Your task to perform on an android device: What's the news in India? Image 0: 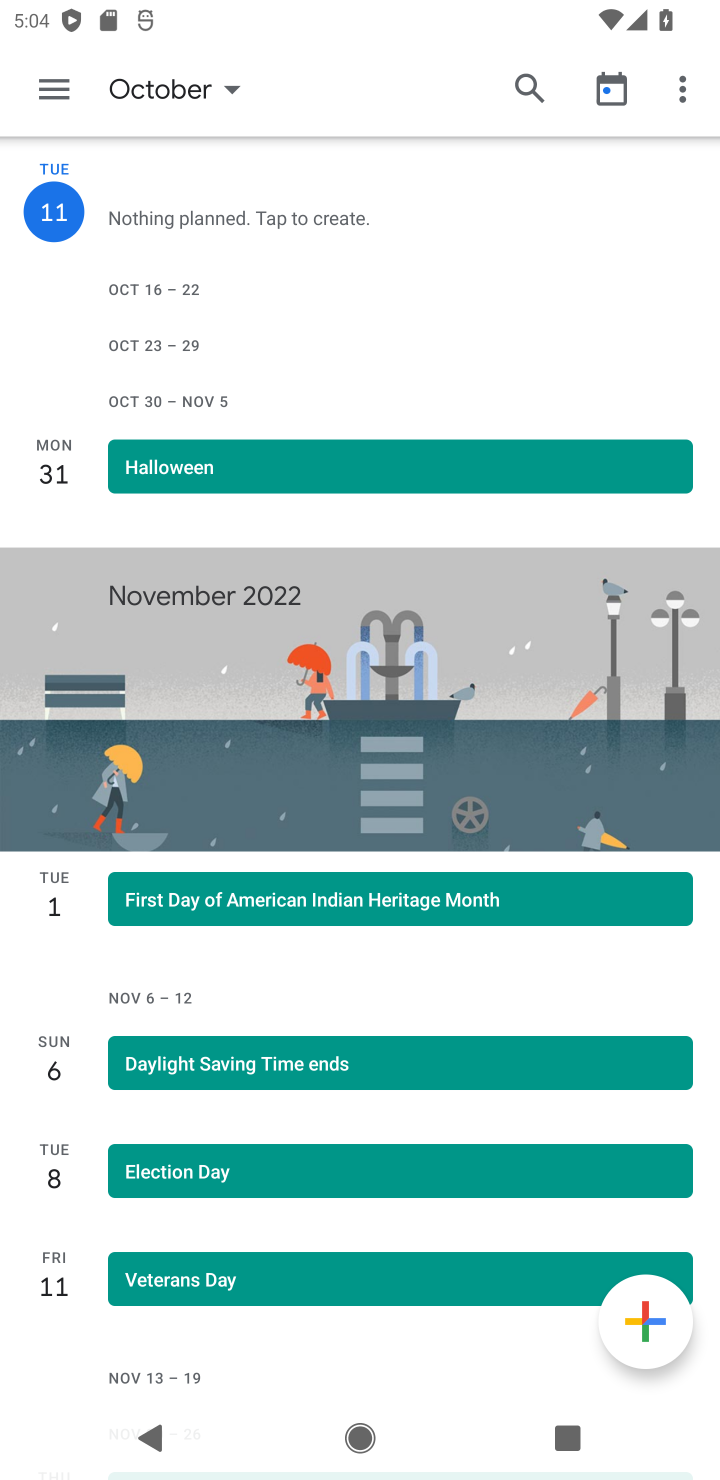
Step 0: press home button
Your task to perform on an android device: What's the news in India? Image 1: 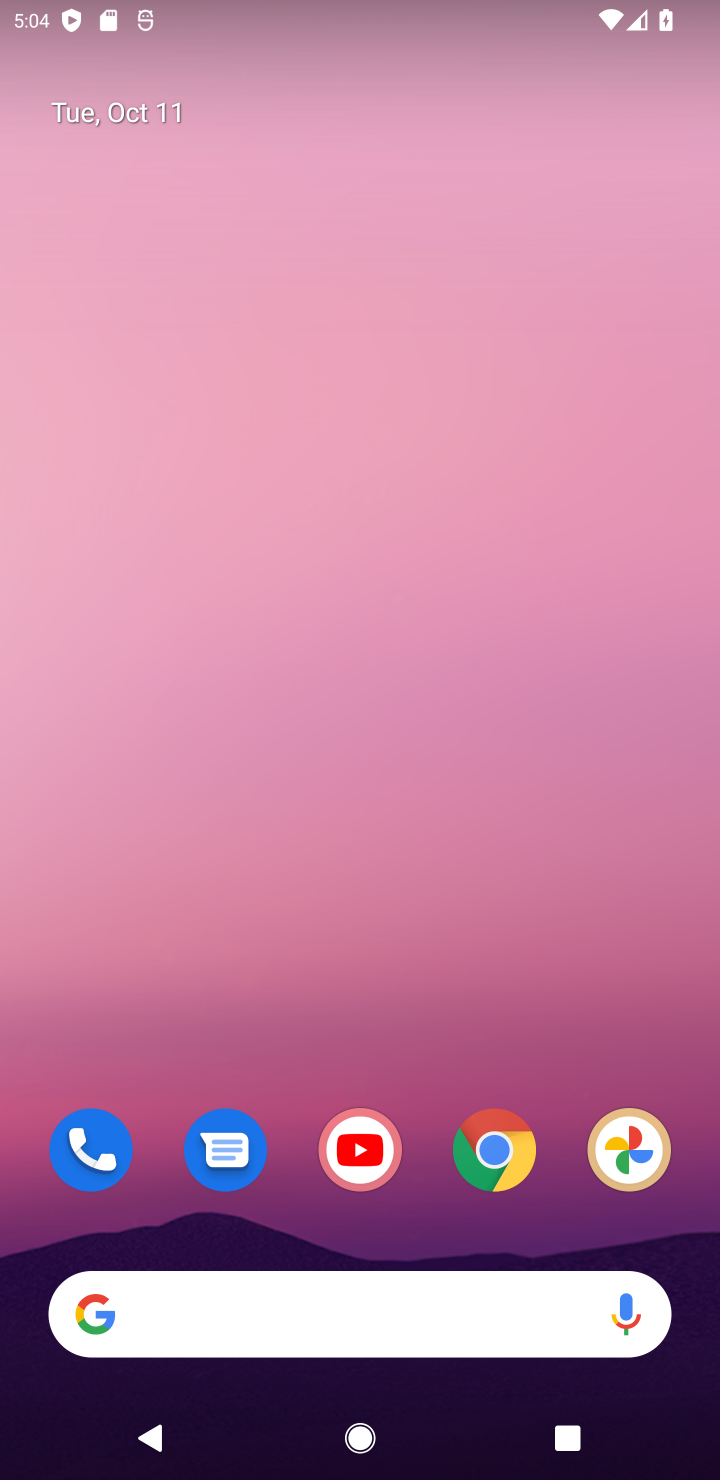
Step 1: click (487, 1150)
Your task to perform on an android device: What's the news in India? Image 2: 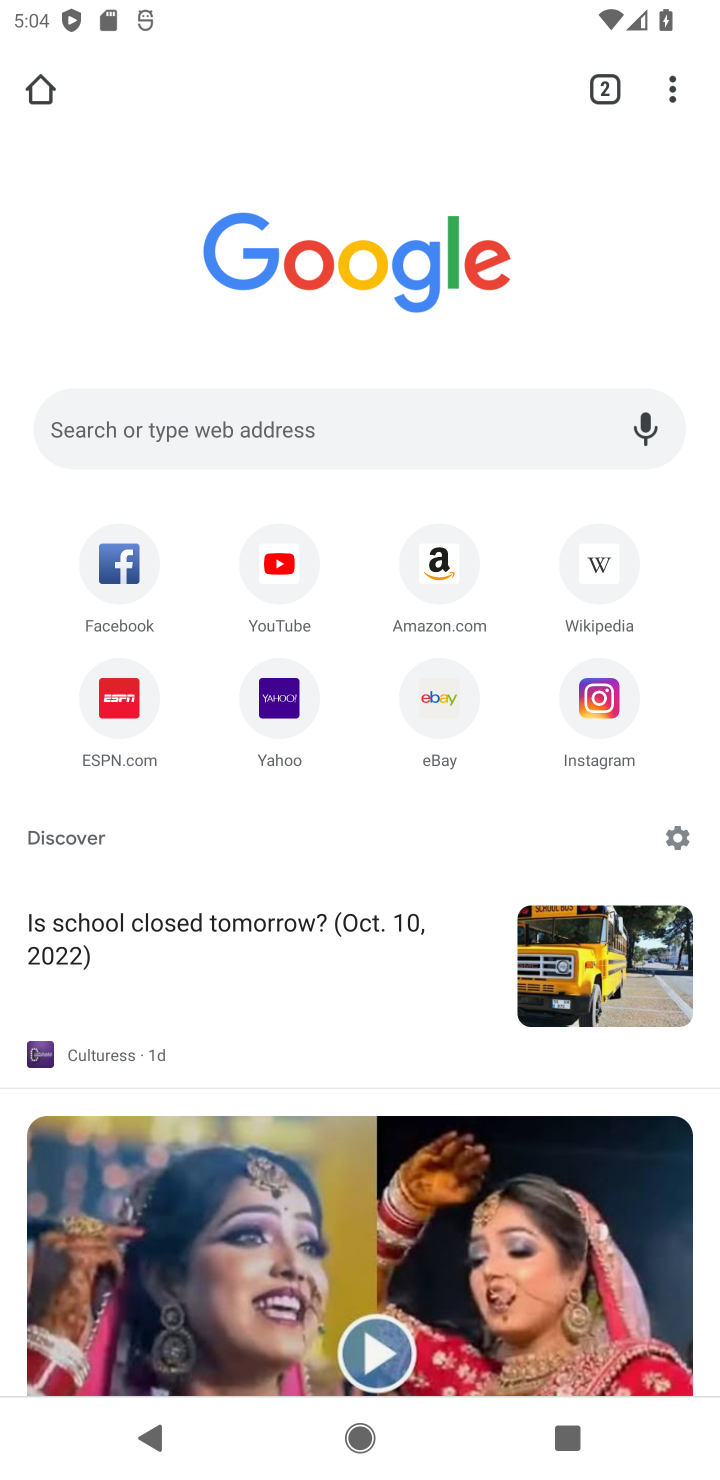
Step 2: click (241, 442)
Your task to perform on an android device: What's the news in India? Image 3: 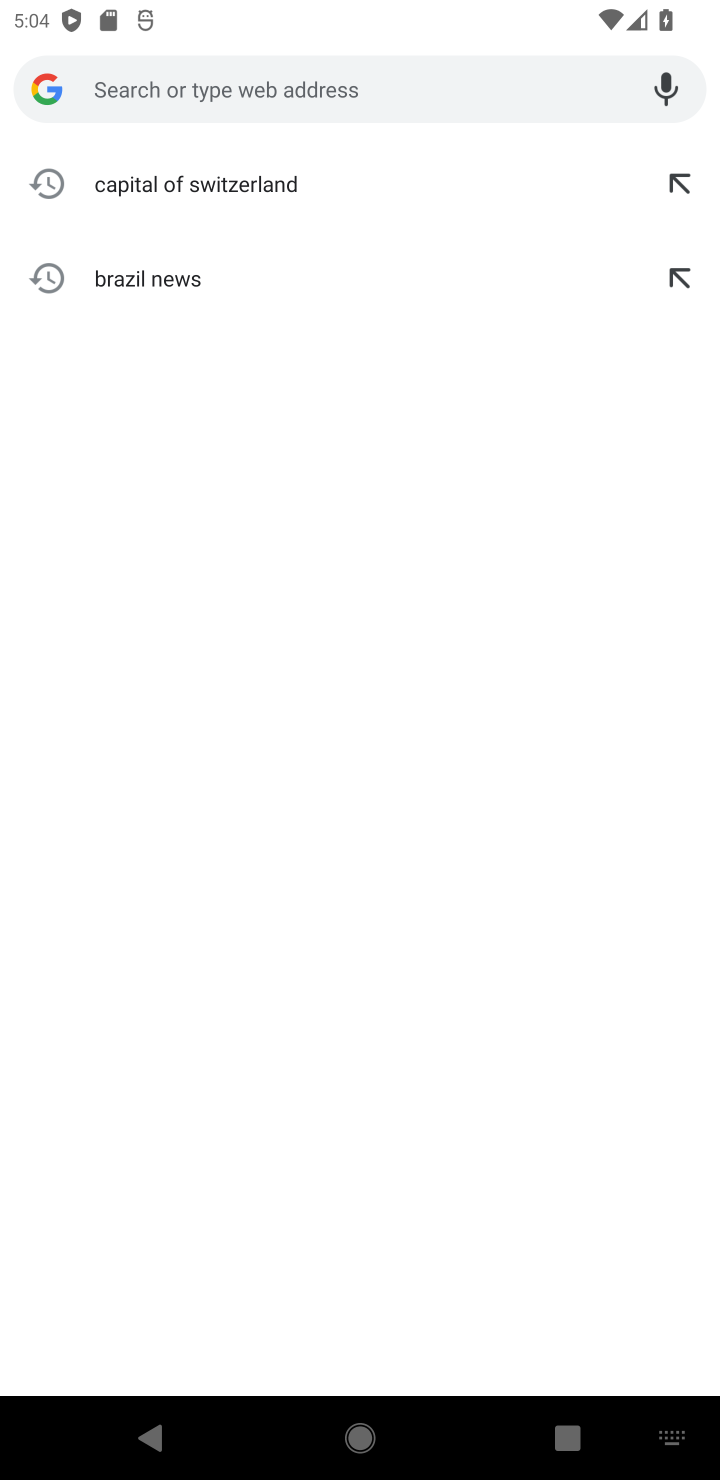
Step 3: type "india news"
Your task to perform on an android device: What's the news in India? Image 4: 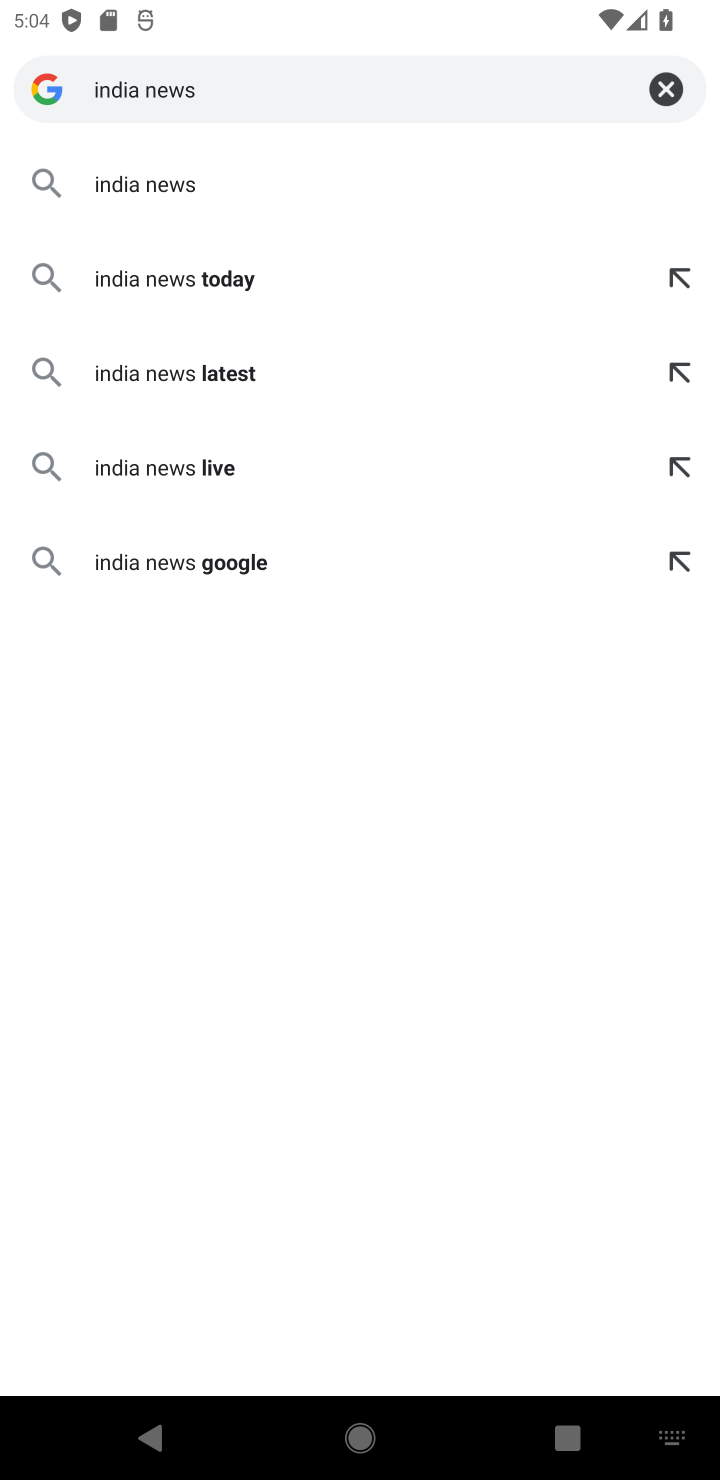
Step 4: click (147, 206)
Your task to perform on an android device: What's the news in India? Image 5: 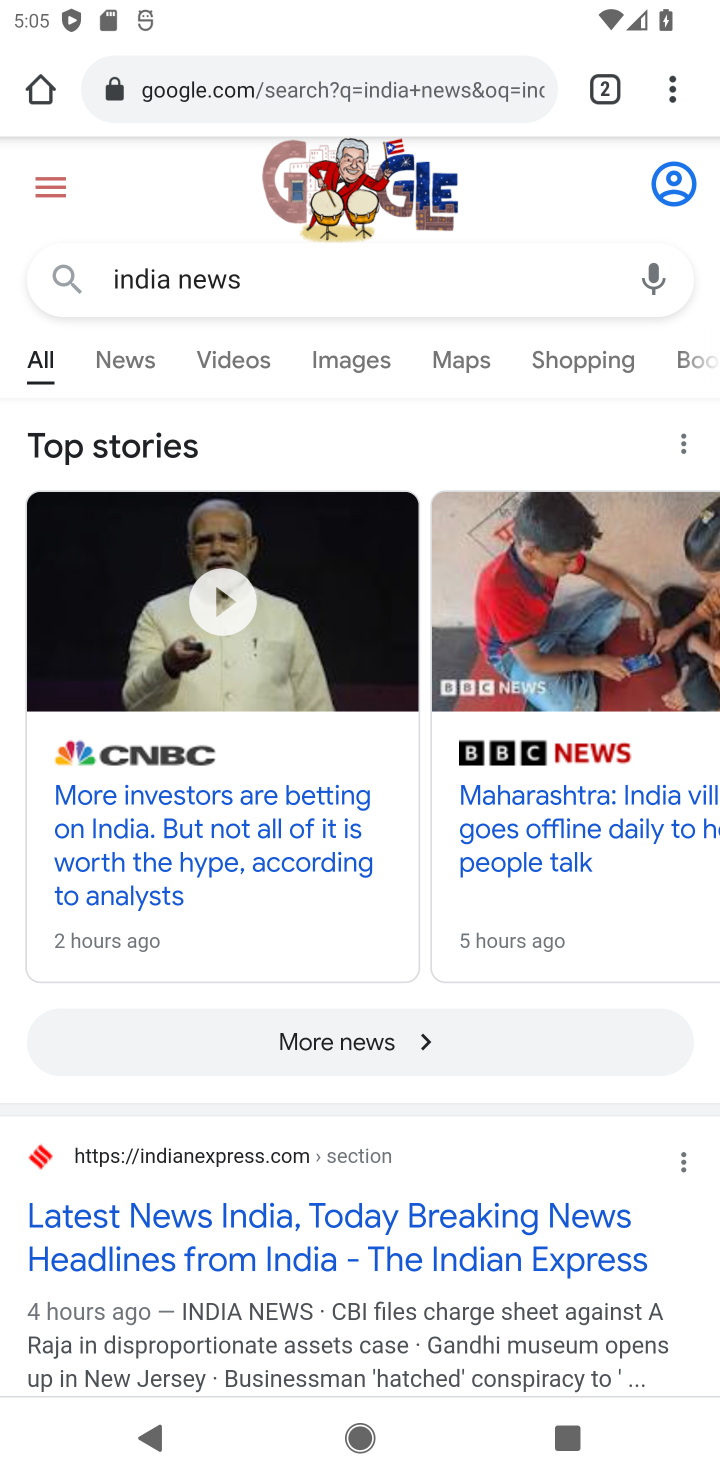
Step 5: click (206, 833)
Your task to perform on an android device: What's the news in India? Image 6: 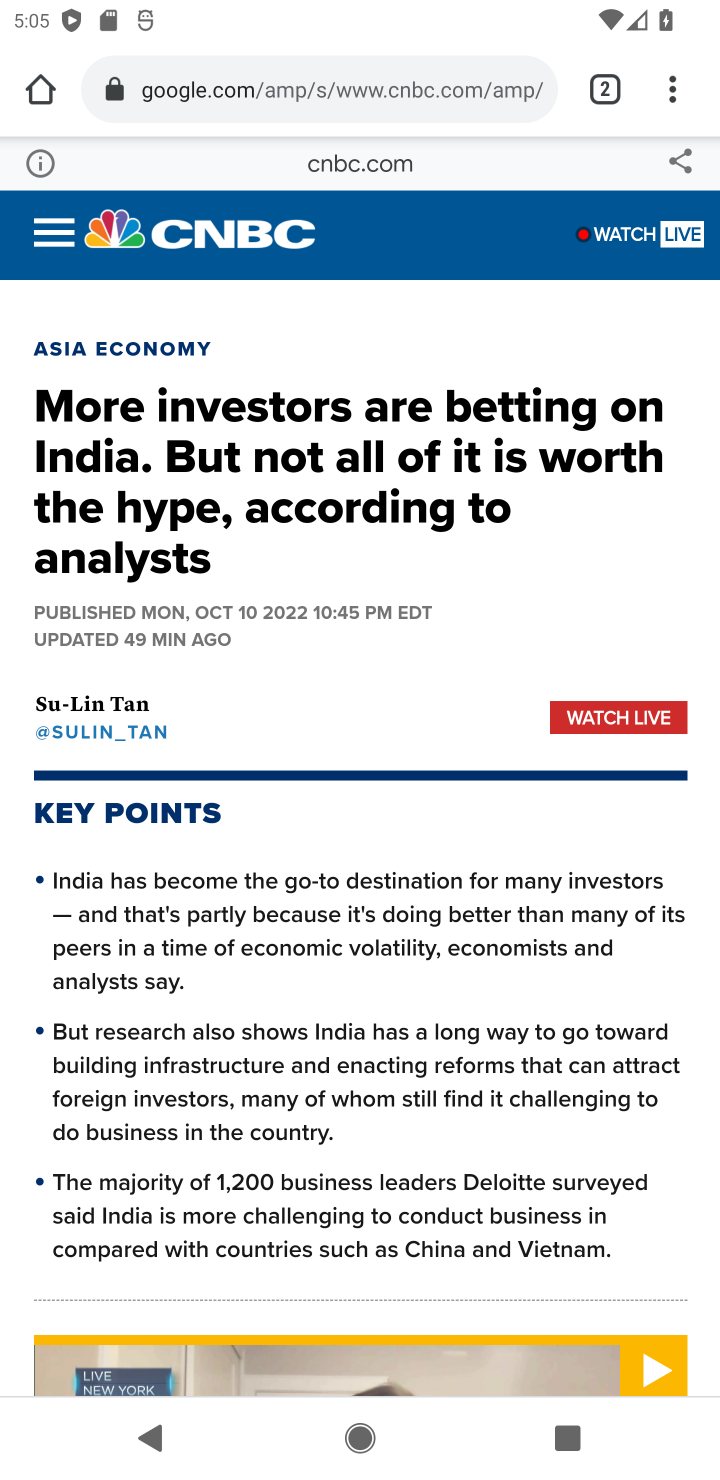
Step 6: task complete